Your task to perform on an android device: turn off location Image 0: 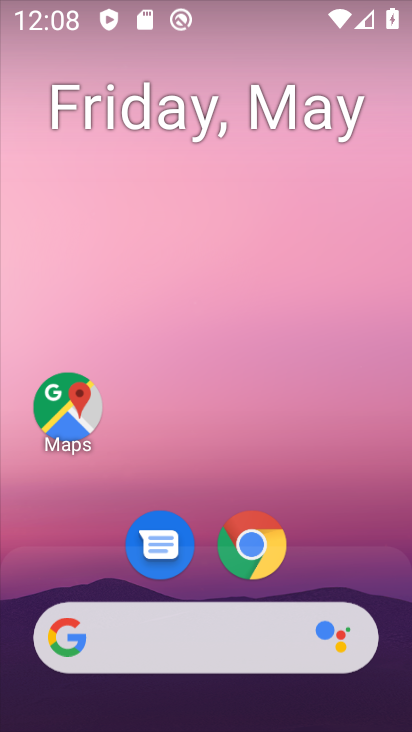
Step 0: drag from (327, 567) to (289, 34)
Your task to perform on an android device: turn off location Image 1: 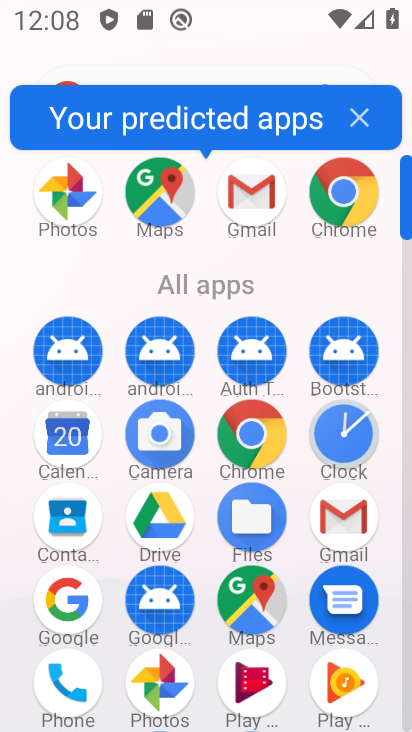
Step 1: drag from (208, 631) to (206, 376)
Your task to perform on an android device: turn off location Image 2: 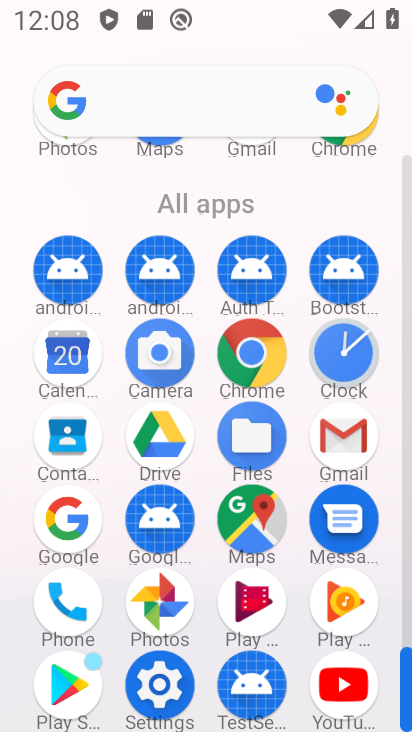
Step 2: click (155, 686)
Your task to perform on an android device: turn off location Image 3: 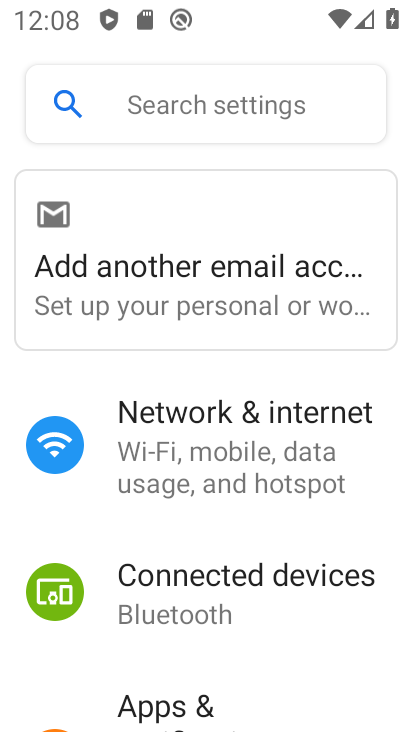
Step 3: drag from (197, 656) to (219, 338)
Your task to perform on an android device: turn off location Image 4: 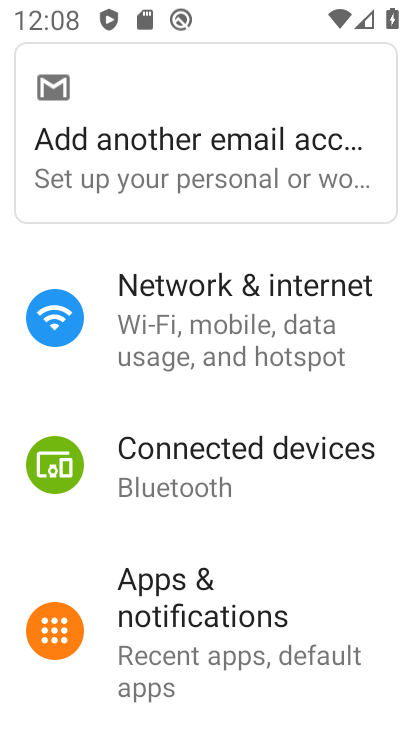
Step 4: press back button
Your task to perform on an android device: turn off location Image 5: 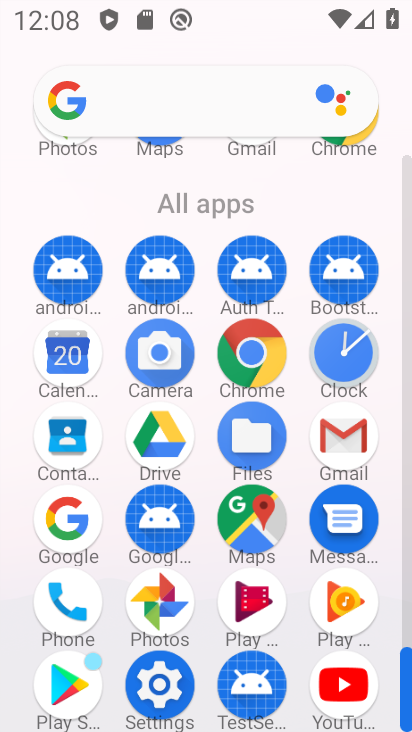
Step 5: click (151, 693)
Your task to perform on an android device: turn off location Image 6: 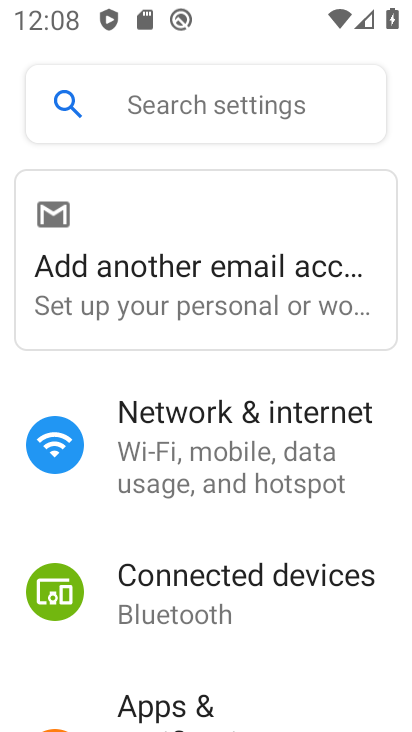
Step 6: drag from (166, 695) to (200, 294)
Your task to perform on an android device: turn off location Image 7: 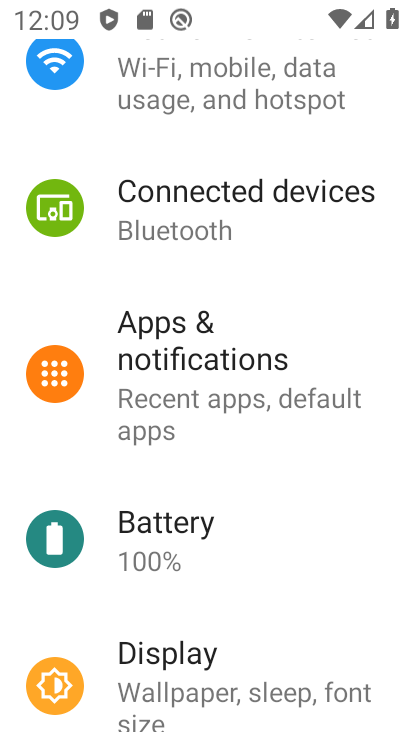
Step 7: drag from (162, 610) to (176, 319)
Your task to perform on an android device: turn off location Image 8: 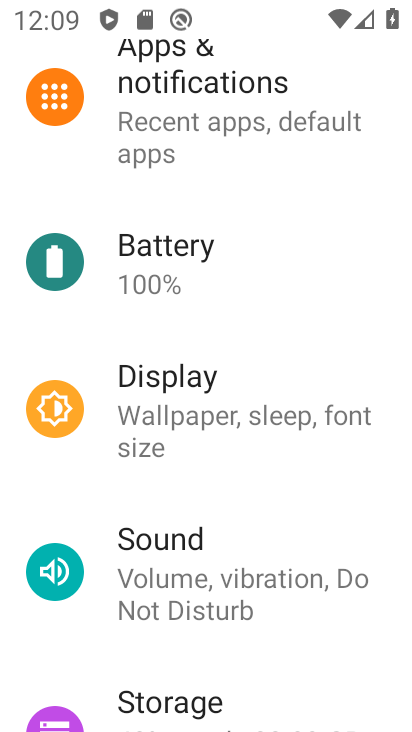
Step 8: drag from (180, 608) to (220, 270)
Your task to perform on an android device: turn off location Image 9: 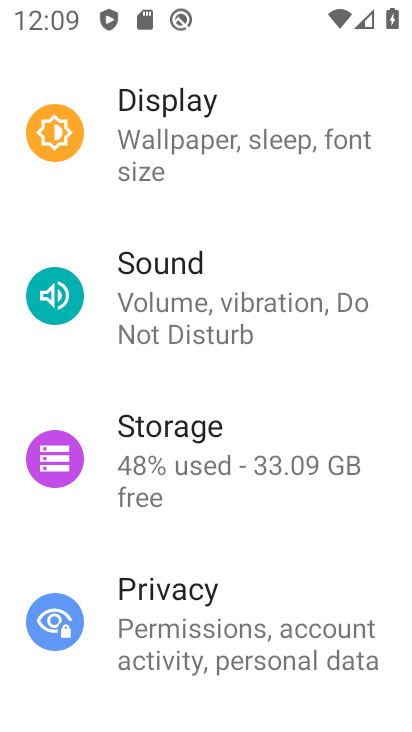
Step 9: drag from (176, 598) to (180, 297)
Your task to perform on an android device: turn off location Image 10: 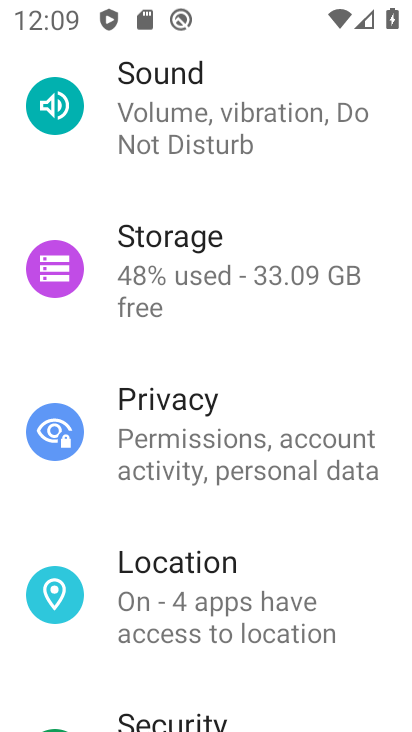
Step 10: click (167, 595)
Your task to perform on an android device: turn off location Image 11: 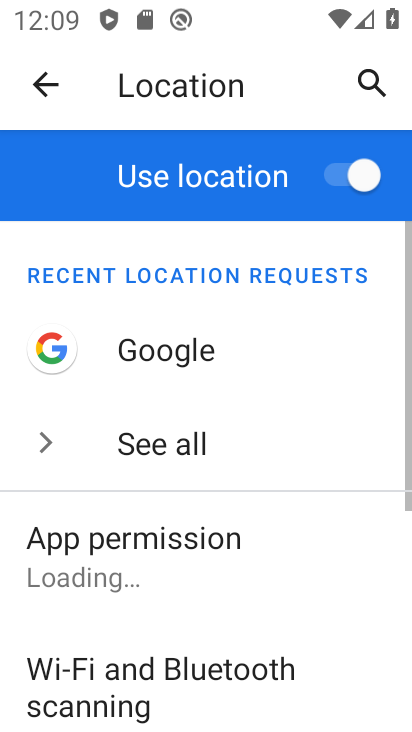
Step 11: task complete